Your task to perform on an android device: choose inbox layout in the gmail app Image 0: 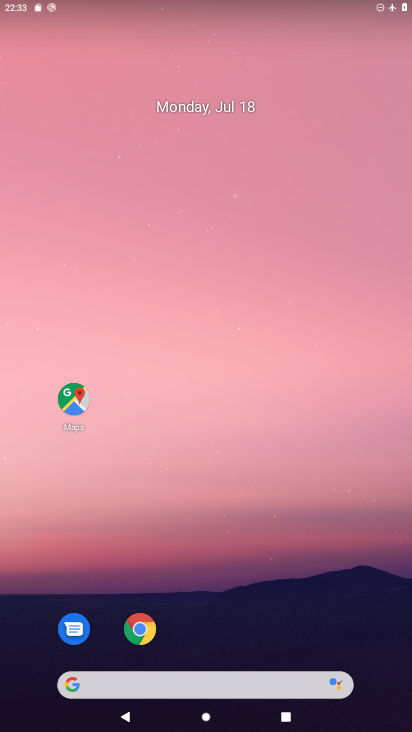
Step 0: drag from (318, 566) to (167, 33)
Your task to perform on an android device: choose inbox layout in the gmail app Image 1: 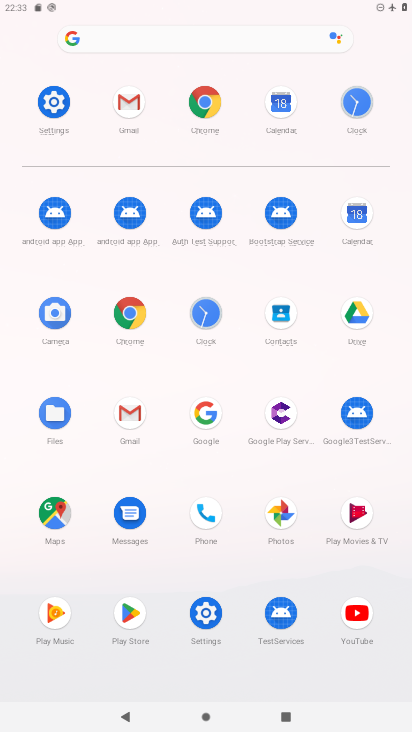
Step 1: click (129, 98)
Your task to perform on an android device: choose inbox layout in the gmail app Image 2: 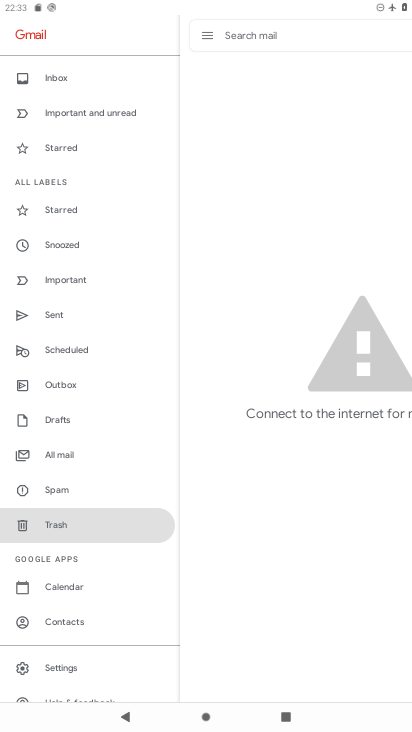
Step 2: click (69, 668)
Your task to perform on an android device: choose inbox layout in the gmail app Image 3: 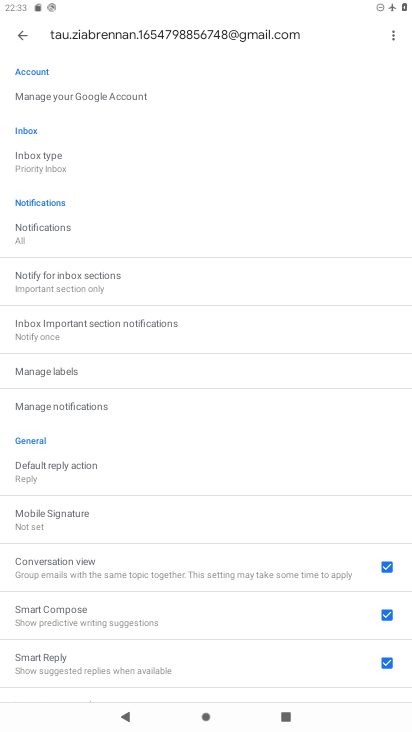
Step 3: click (39, 167)
Your task to perform on an android device: choose inbox layout in the gmail app Image 4: 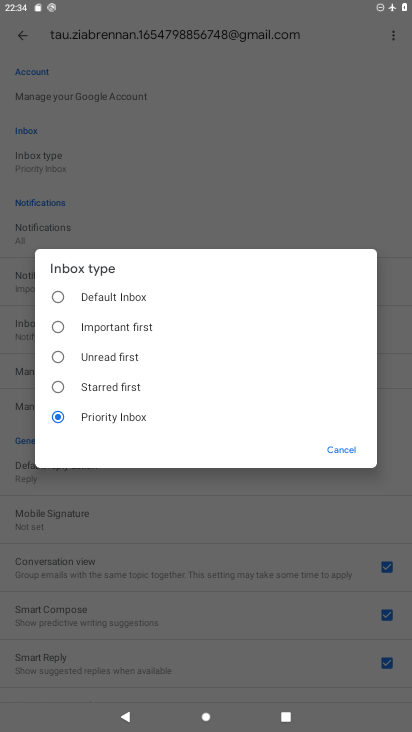
Step 4: task complete